Your task to perform on an android device: turn on notifications settings in the gmail app Image 0: 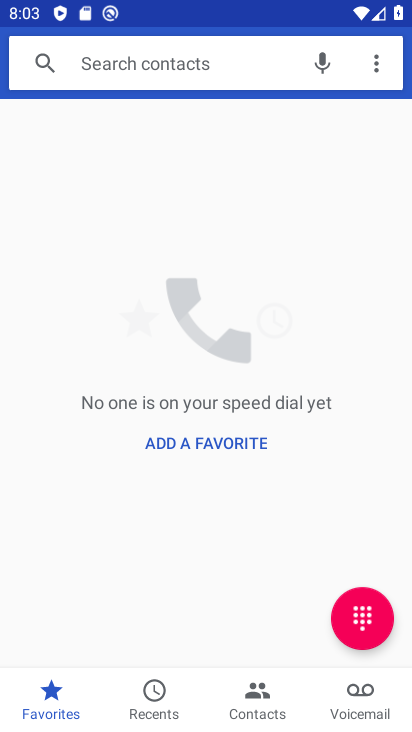
Step 0: press back button
Your task to perform on an android device: turn on notifications settings in the gmail app Image 1: 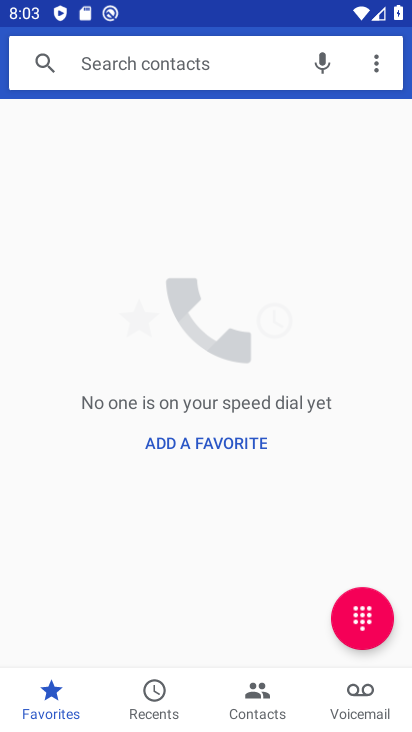
Step 1: press home button
Your task to perform on an android device: turn on notifications settings in the gmail app Image 2: 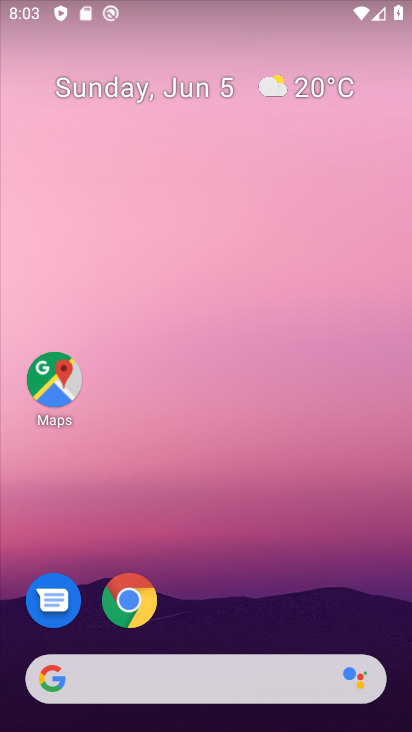
Step 2: drag from (341, 613) to (224, 24)
Your task to perform on an android device: turn on notifications settings in the gmail app Image 3: 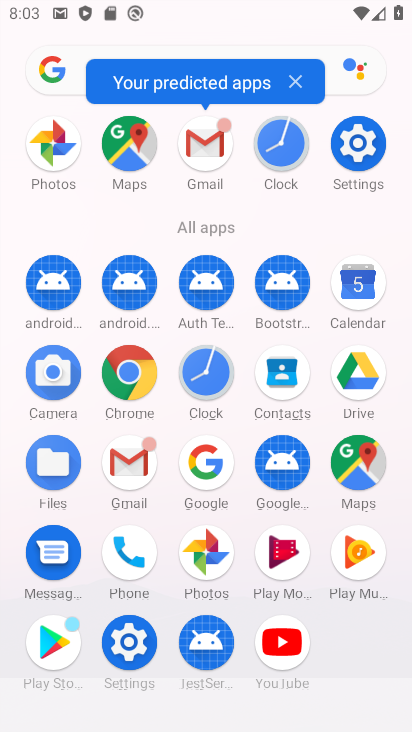
Step 3: click (135, 470)
Your task to perform on an android device: turn on notifications settings in the gmail app Image 4: 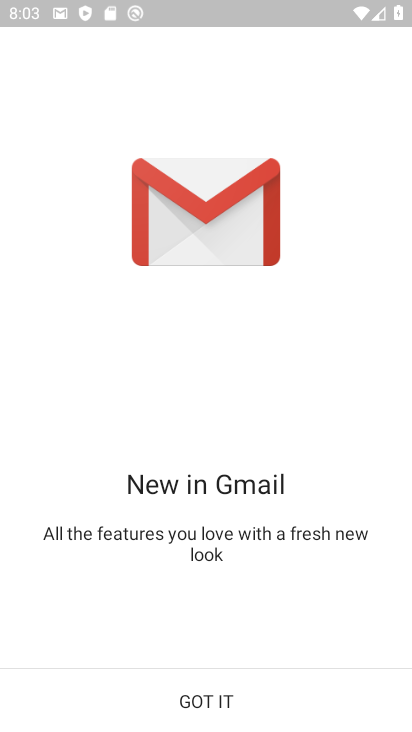
Step 4: click (231, 690)
Your task to perform on an android device: turn on notifications settings in the gmail app Image 5: 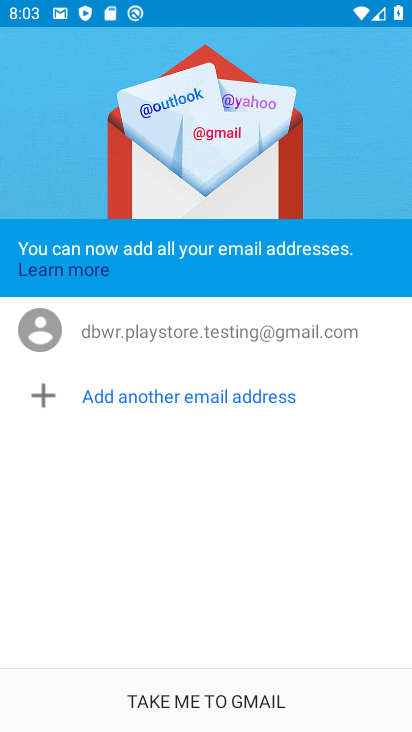
Step 5: click (231, 690)
Your task to perform on an android device: turn on notifications settings in the gmail app Image 6: 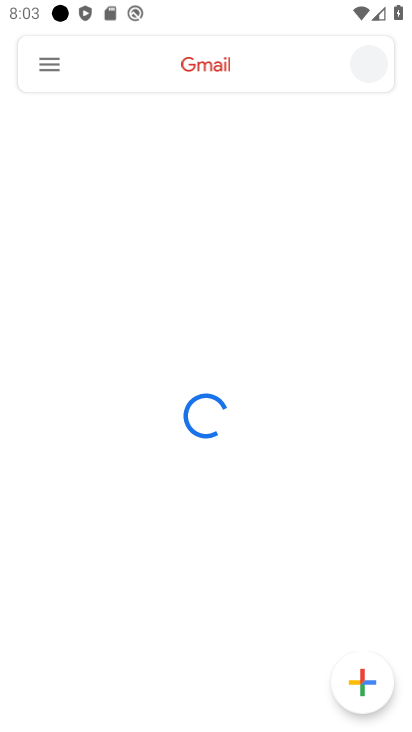
Step 6: click (51, 65)
Your task to perform on an android device: turn on notifications settings in the gmail app Image 7: 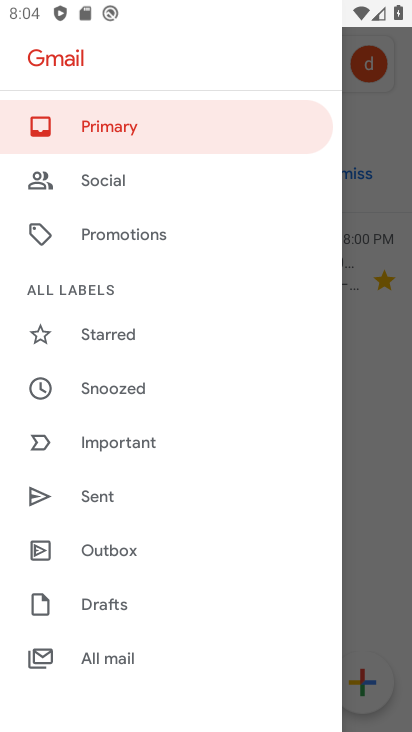
Step 7: drag from (127, 623) to (176, 70)
Your task to perform on an android device: turn on notifications settings in the gmail app Image 8: 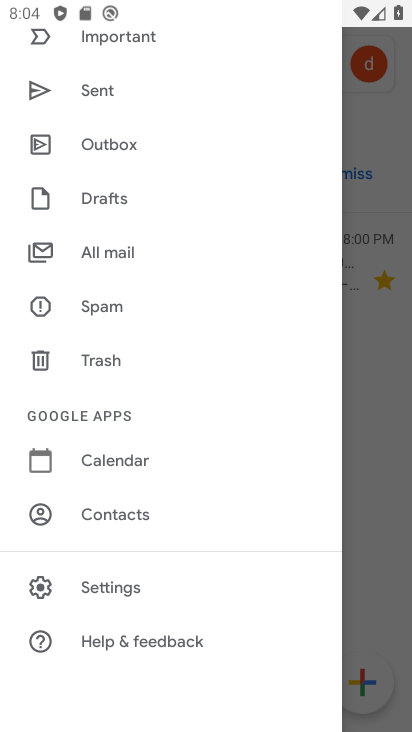
Step 8: click (111, 603)
Your task to perform on an android device: turn on notifications settings in the gmail app Image 9: 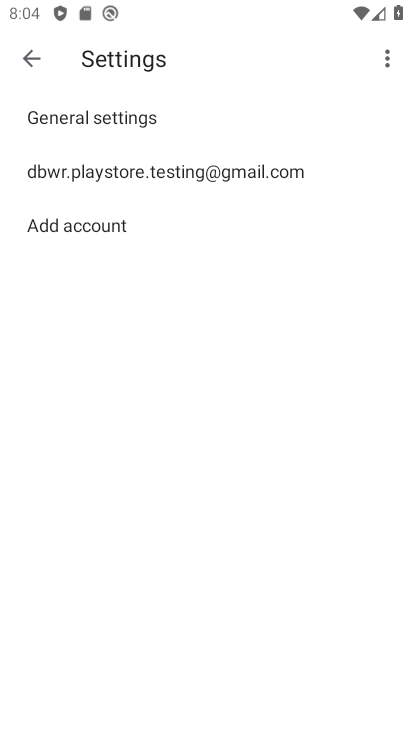
Step 9: click (227, 162)
Your task to perform on an android device: turn on notifications settings in the gmail app Image 10: 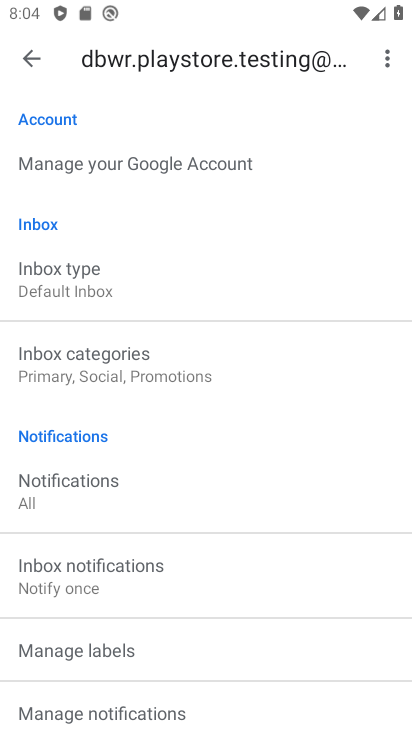
Step 10: click (102, 483)
Your task to perform on an android device: turn on notifications settings in the gmail app Image 11: 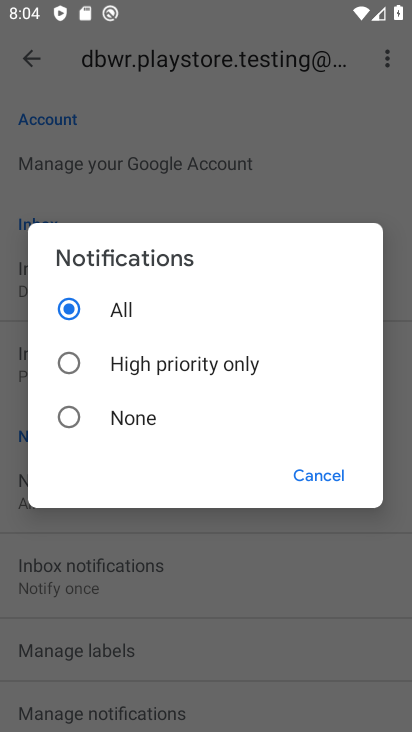
Step 11: task complete